Your task to perform on an android device: Open Google Maps Image 0: 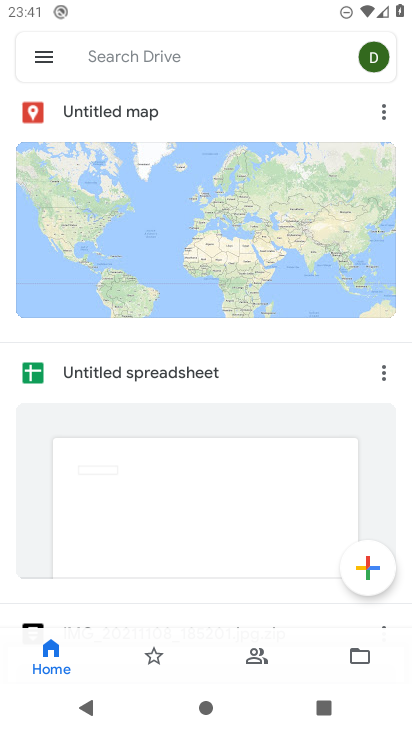
Step 0: press home button
Your task to perform on an android device: Open Google Maps Image 1: 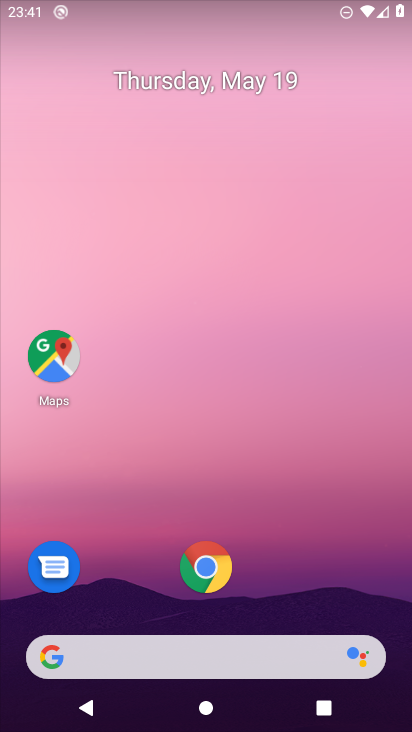
Step 1: click (54, 352)
Your task to perform on an android device: Open Google Maps Image 2: 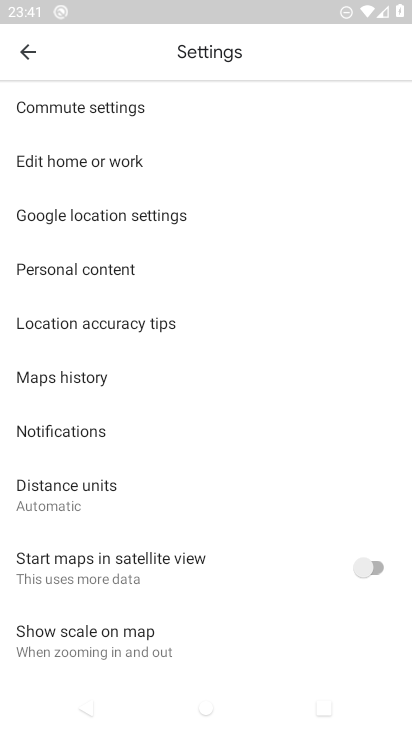
Step 2: click (31, 49)
Your task to perform on an android device: Open Google Maps Image 3: 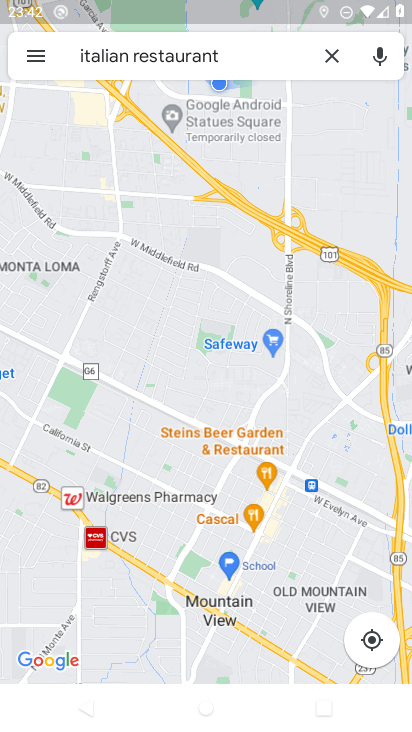
Step 3: click (324, 56)
Your task to perform on an android device: Open Google Maps Image 4: 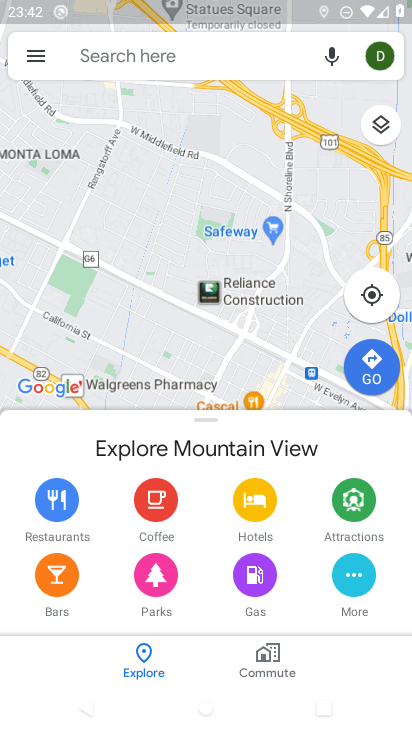
Step 4: task complete